Your task to perform on an android device: Open Chrome and go to settings Image 0: 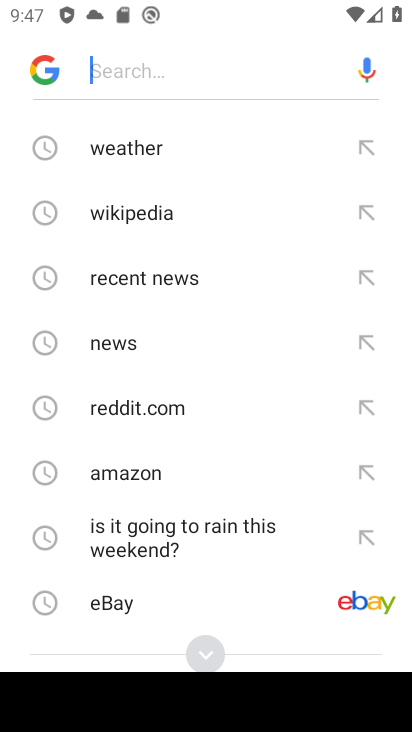
Step 0: press home button
Your task to perform on an android device: Open Chrome and go to settings Image 1: 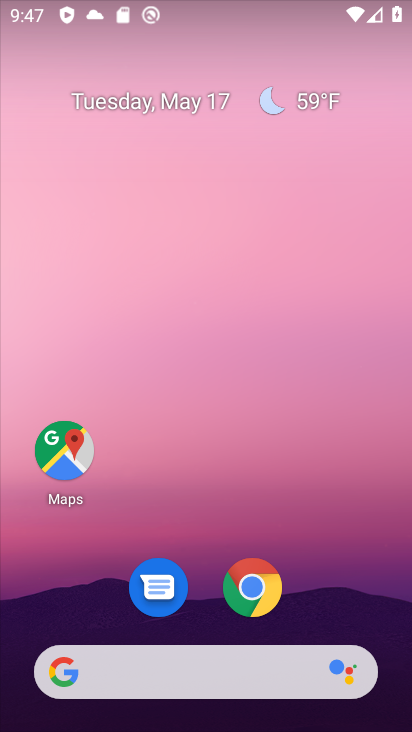
Step 1: click (253, 589)
Your task to perform on an android device: Open Chrome and go to settings Image 2: 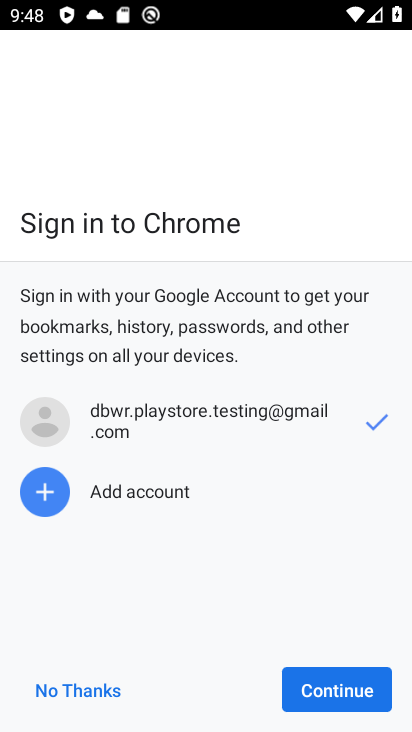
Step 2: click (326, 680)
Your task to perform on an android device: Open Chrome and go to settings Image 3: 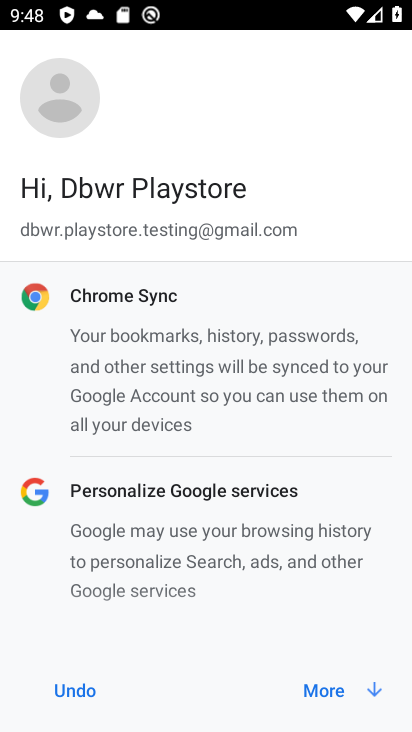
Step 3: click (326, 680)
Your task to perform on an android device: Open Chrome and go to settings Image 4: 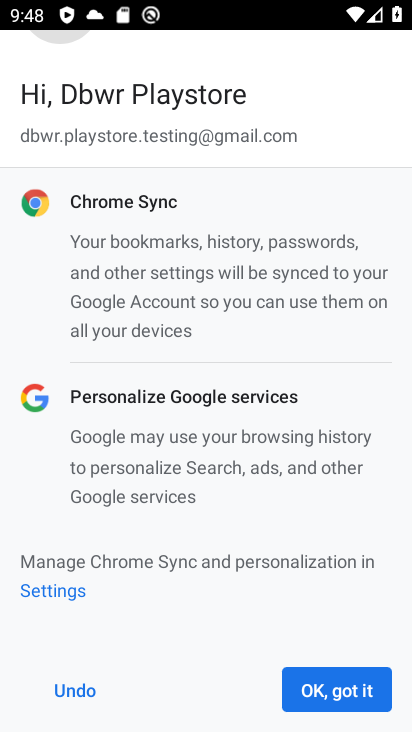
Step 4: click (326, 680)
Your task to perform on an android device: Open Chrome and go to settings Image 5: 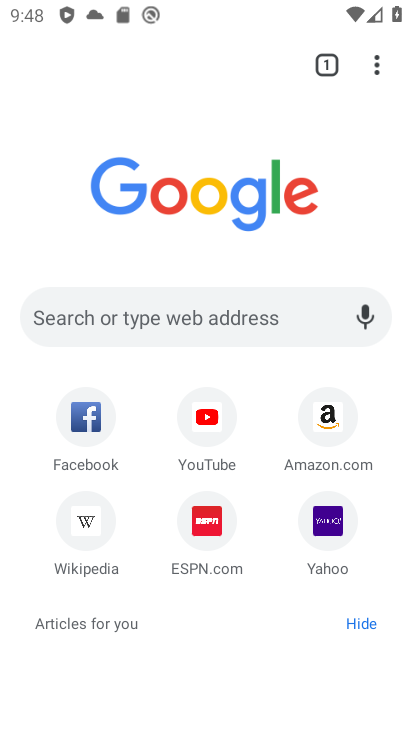
Step 5: click (385, 62)
Your task to perform on an android device: Open Chrome and go to settings Image 6: 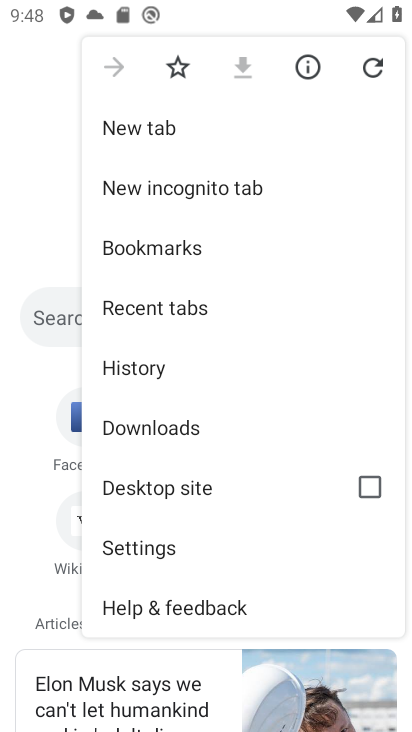
Step 6: click (152, 546)
Your task to perform on an android device: Open Chrome and go to settings Image 7: 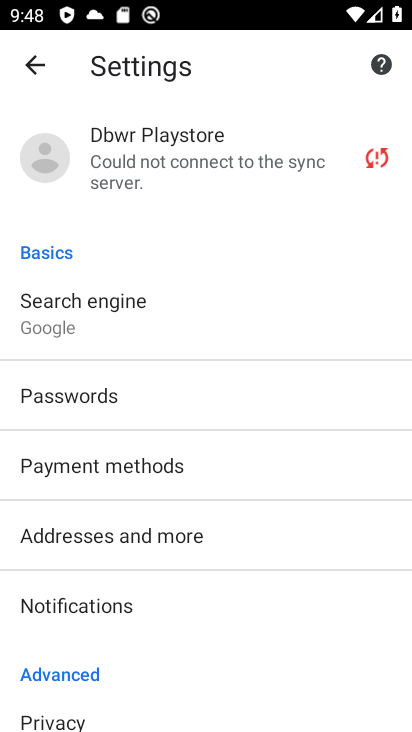
Step 7: task complete